Your task to perform on an android device: Open display settings Image 0: 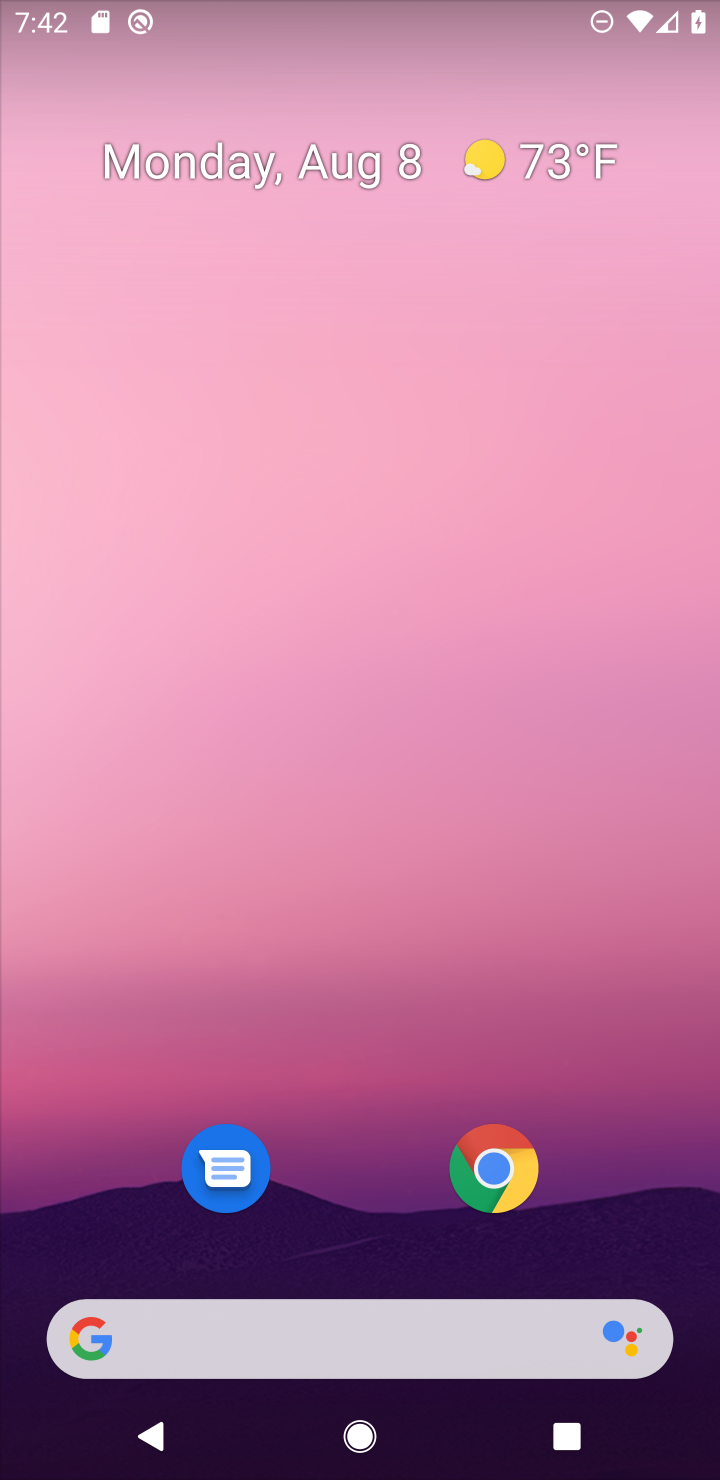
Step 0: press home button
Your task to perform on an android device: Open display settings Image 1: 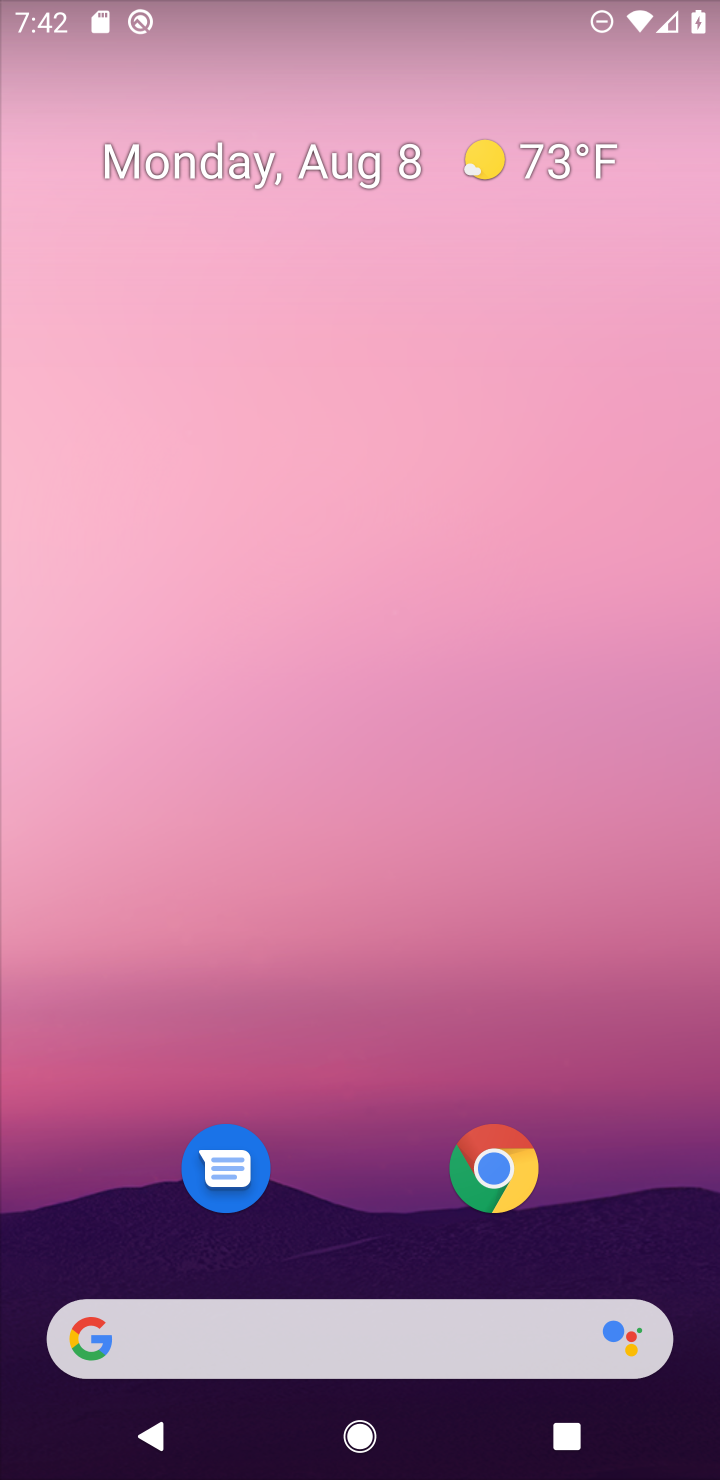
Step 1: drag from (419, 1029) to (578, 223)
Your task to perform on an android device: Open display settings Image 2: 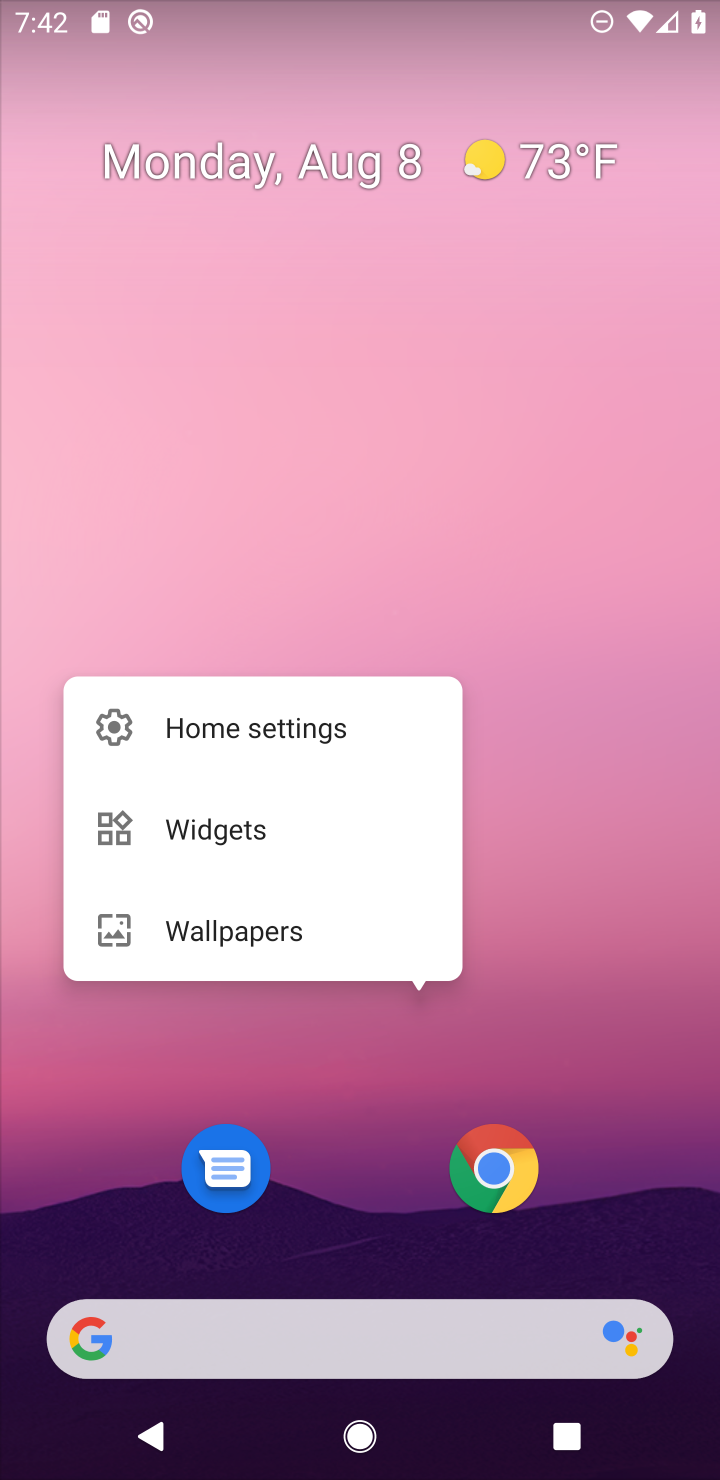
Step 2: drag from (392, 1104) to (557, 336)
Your task to perform on an android device: Open display settings Image 3: 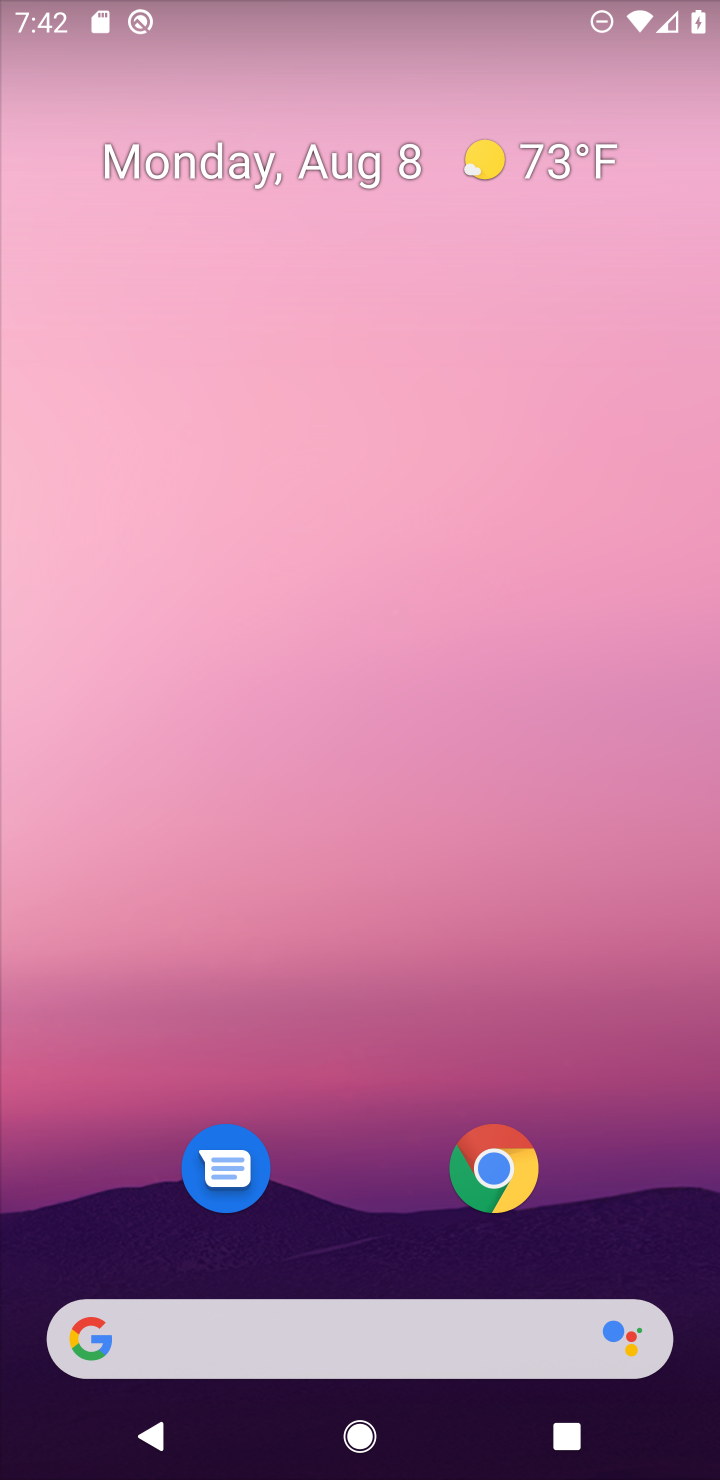
Step 3: press home button
Your task to perform on an android device: Open display settings Image 4: 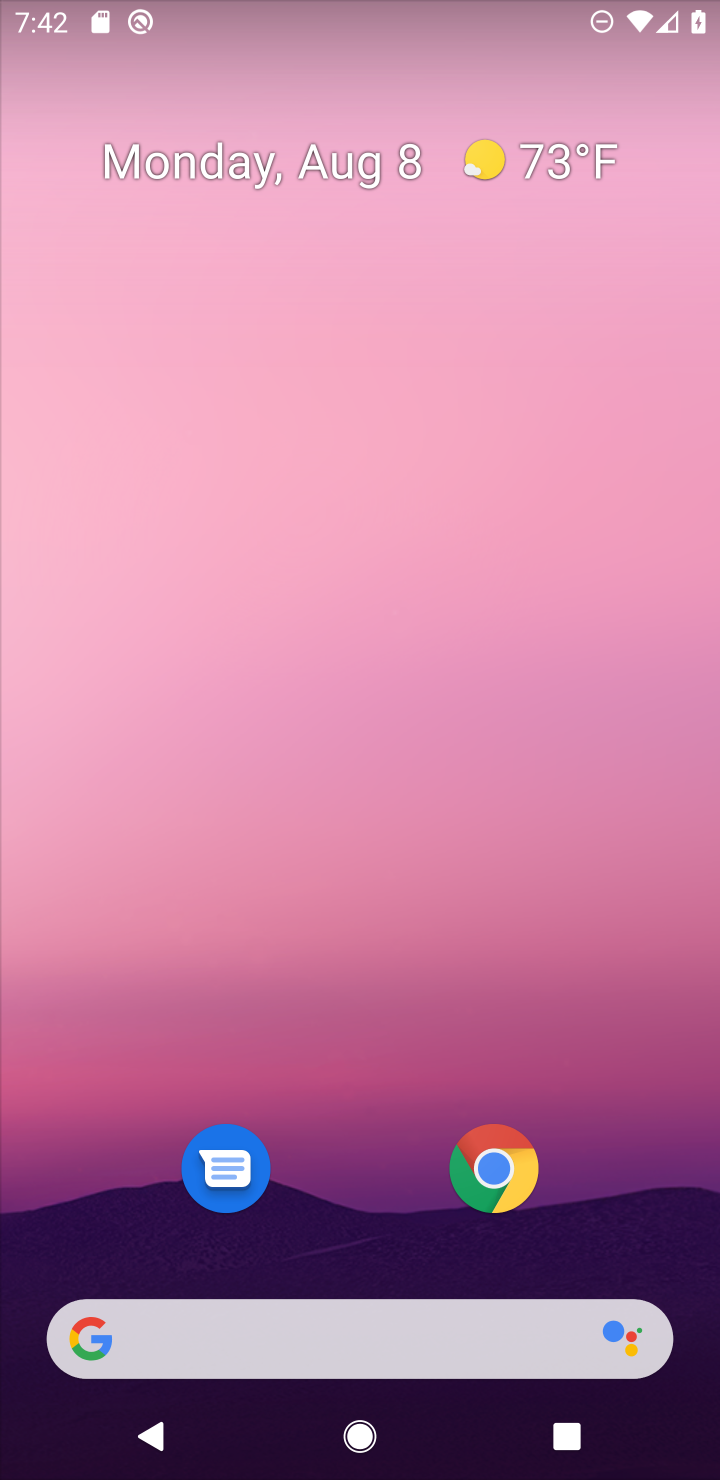
Step 4: drag from (410, 1105) to (687, 175)
Your task to perform on an android device: Open display settings Image 5: 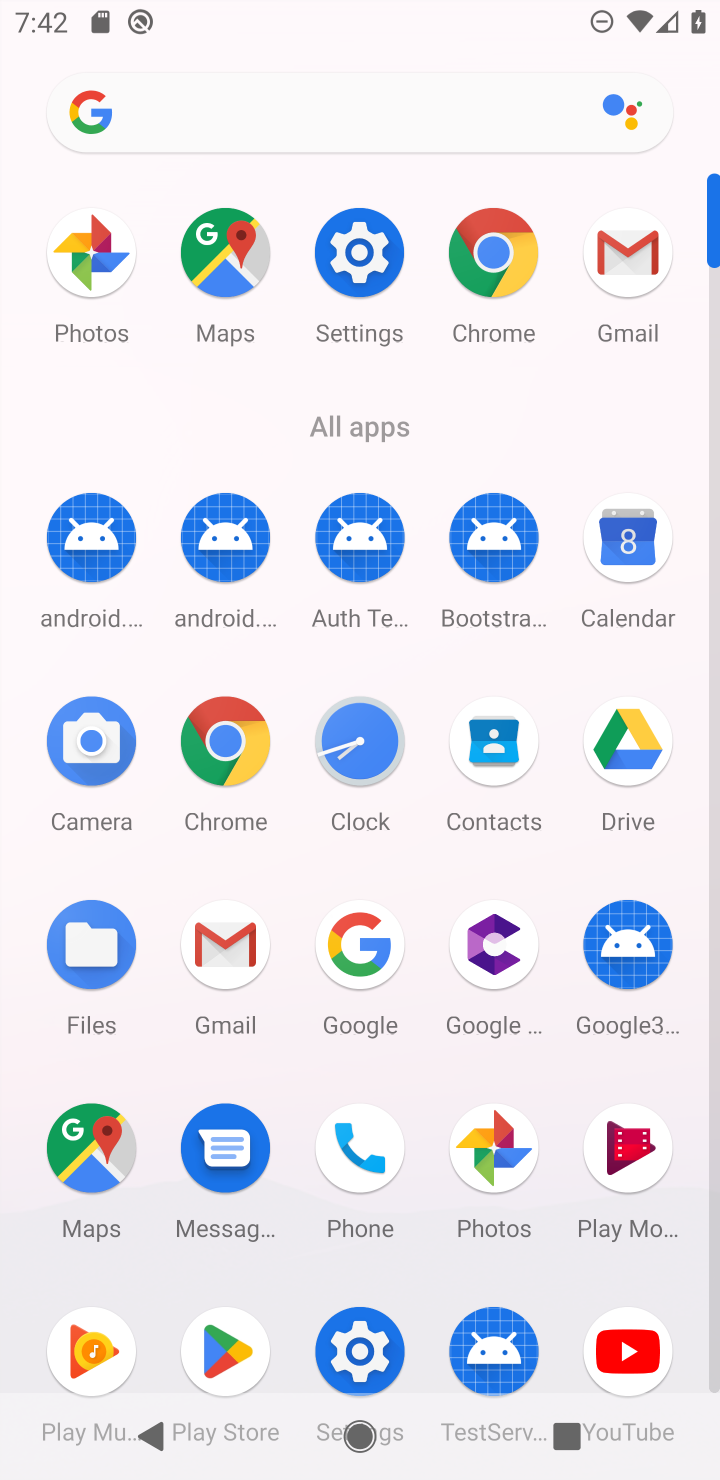
Step 5: click (360, 241)
Your task to perform on an android device: Open display settings Image 6: 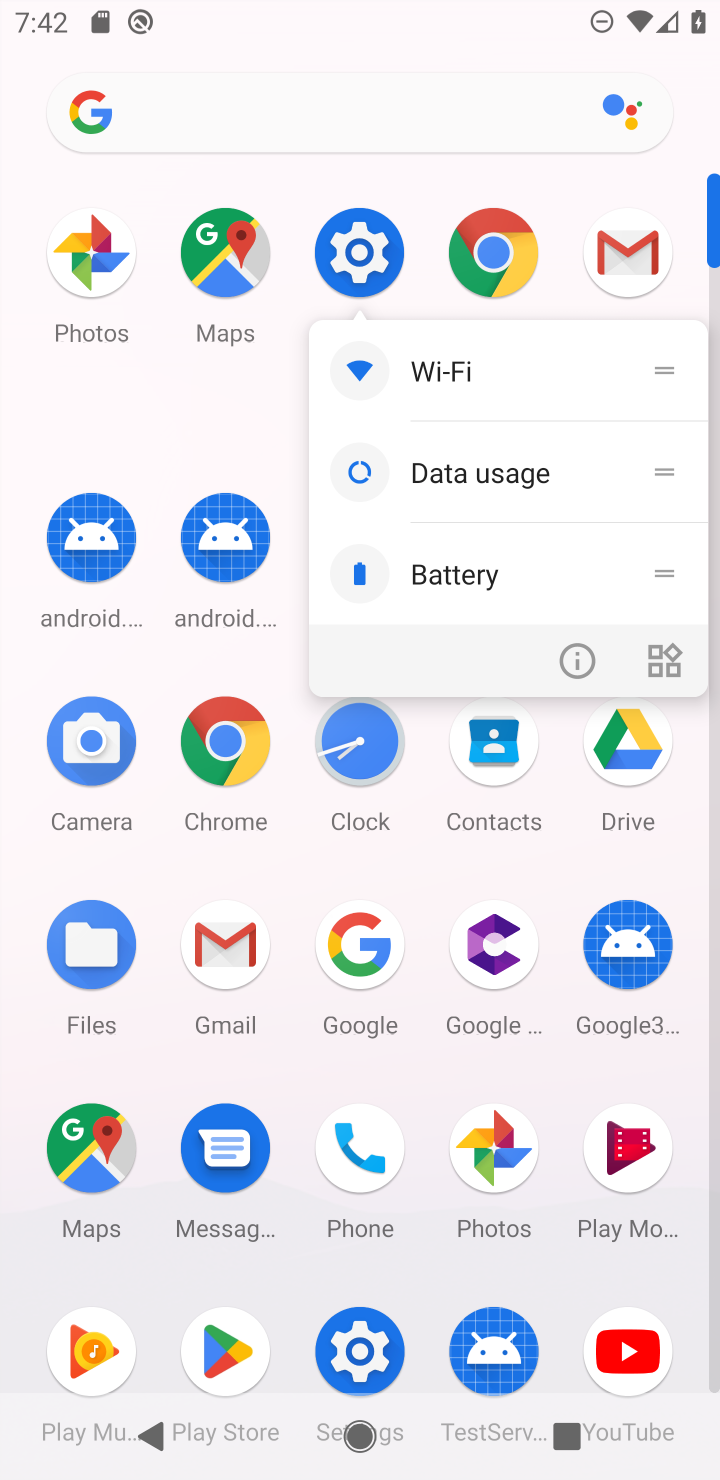
Step 6: click (358, 243)
Your task to perform on an android device: Open display settings Image 7: 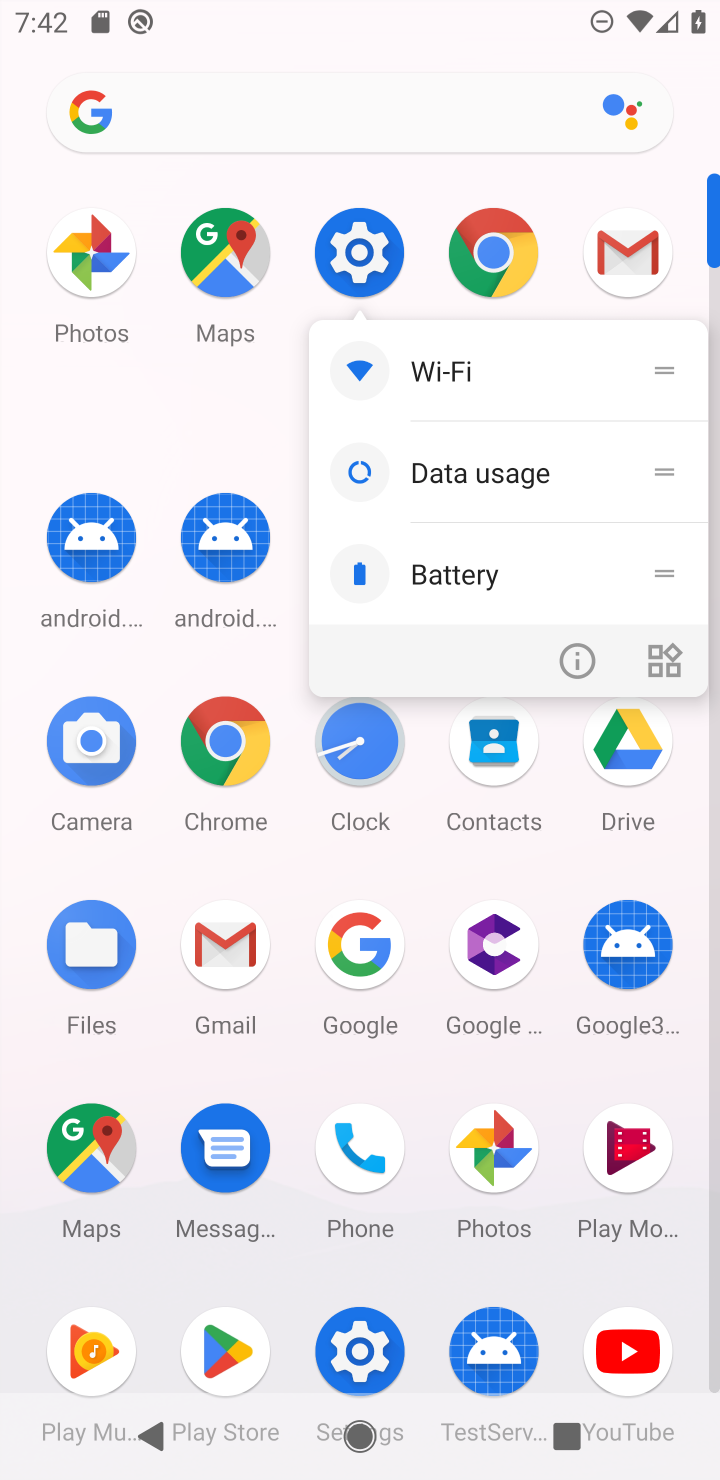
Step 7: click (360, 257)
Your task to perform on an android device: Open display settings Image 8: 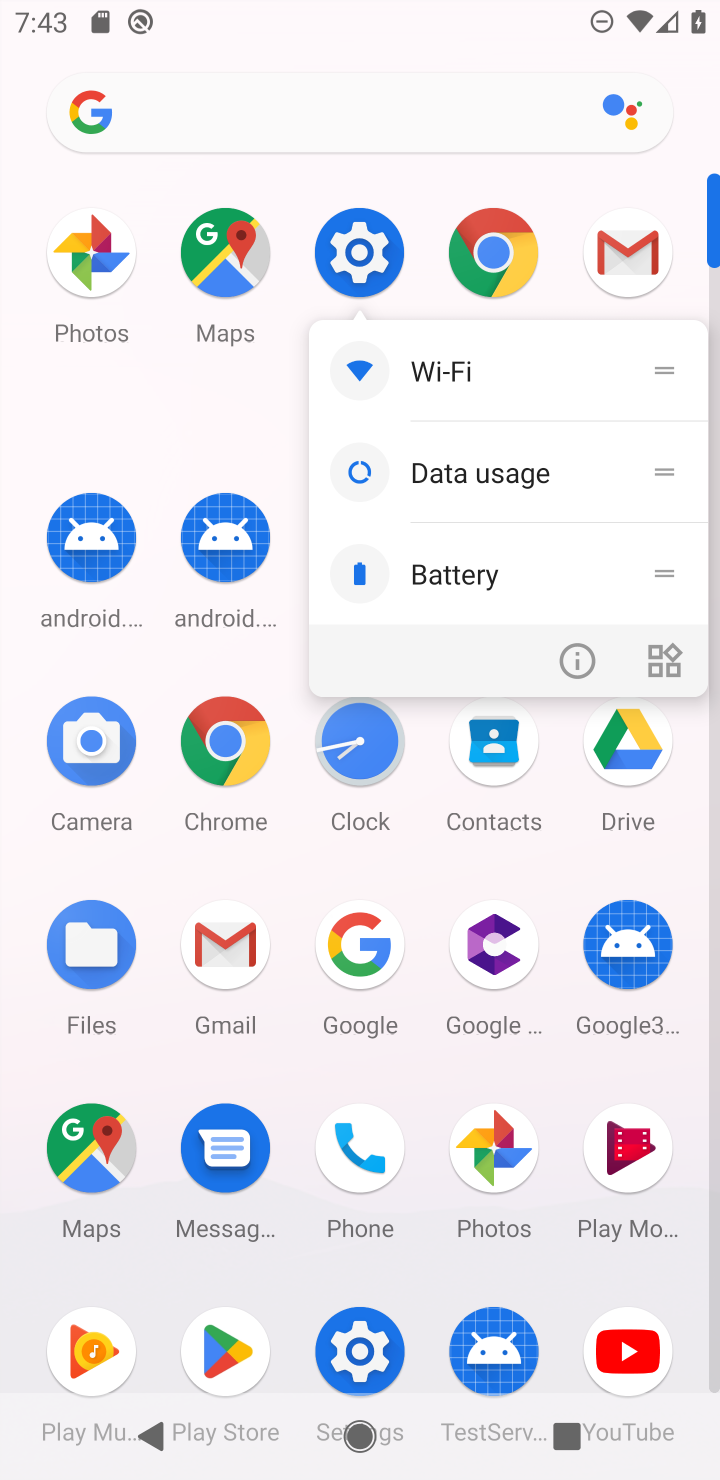
Step 8: click (360, 258)
Your task to perform on an android device: Open display settings Image 9: 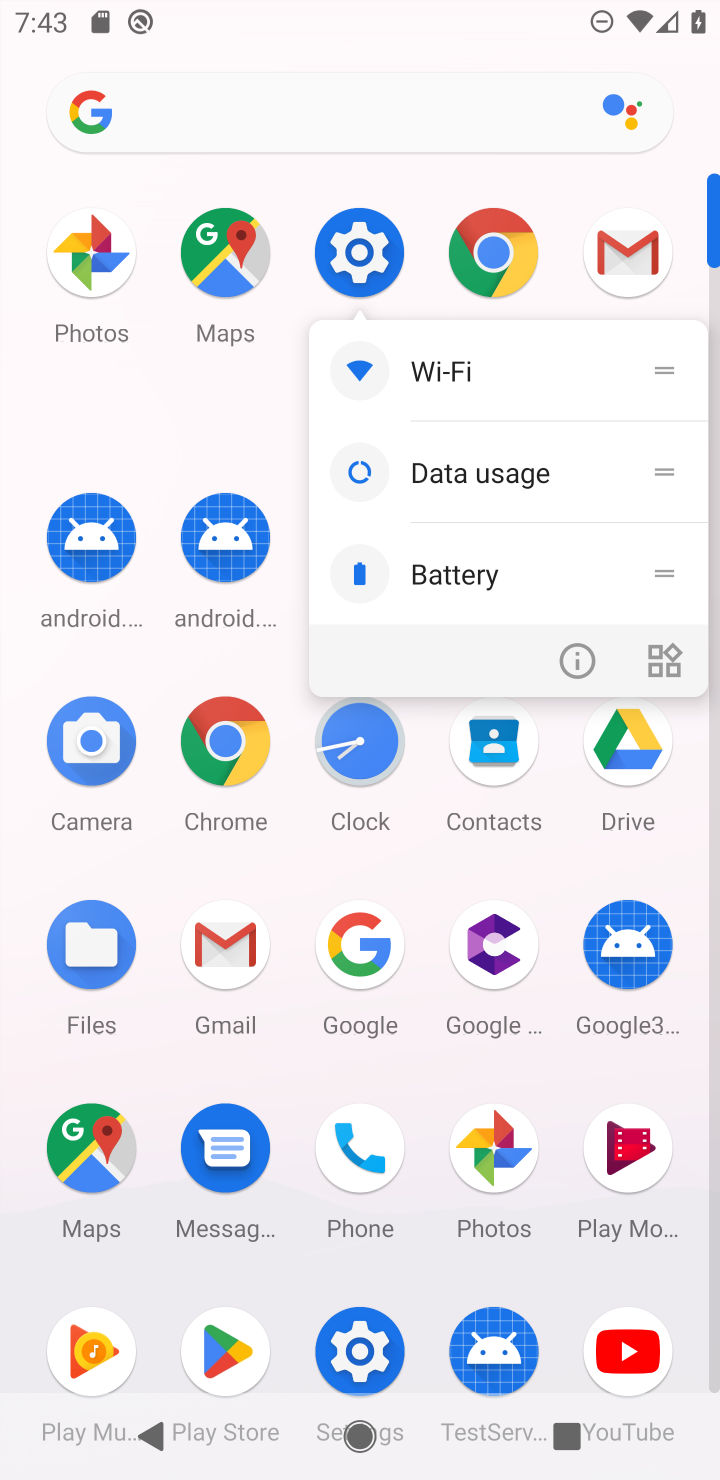
Step 9: click (358, 246)
Your task to perform on an android device: Open display settings Image 10: 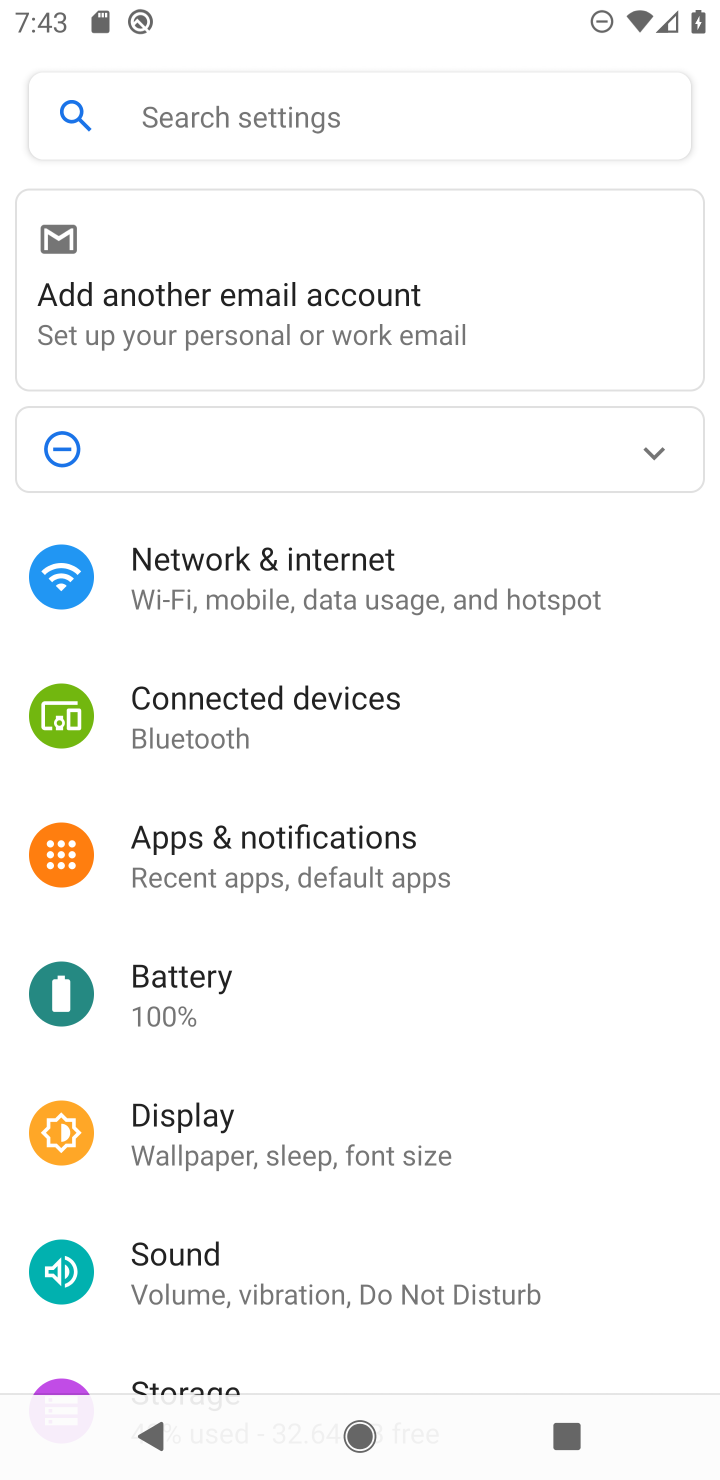
Step 10: click (242, 1132)
Your task to perform on an android device: Open display settings Image 11: 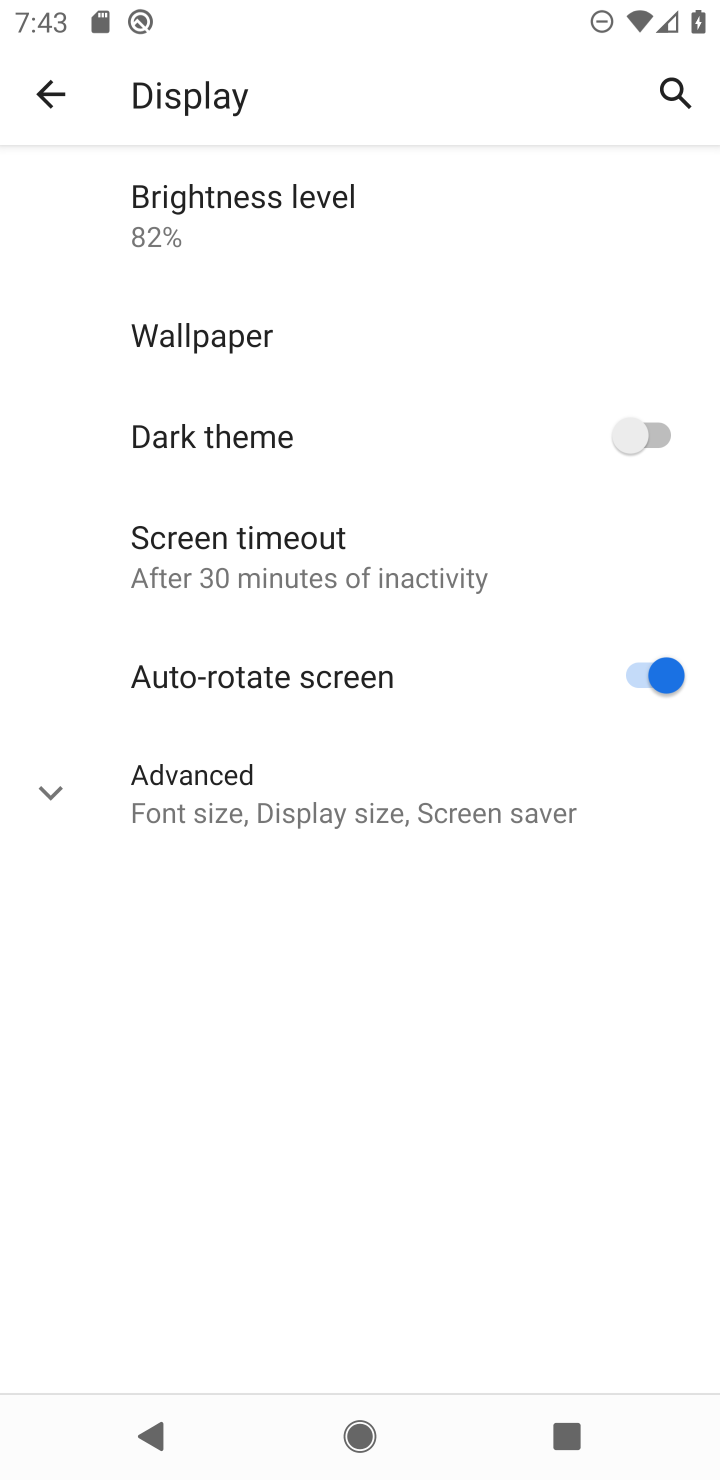
Step 11: task complete